Your task to perform on an android device: stop showing notifications on the lock screen Image 0: 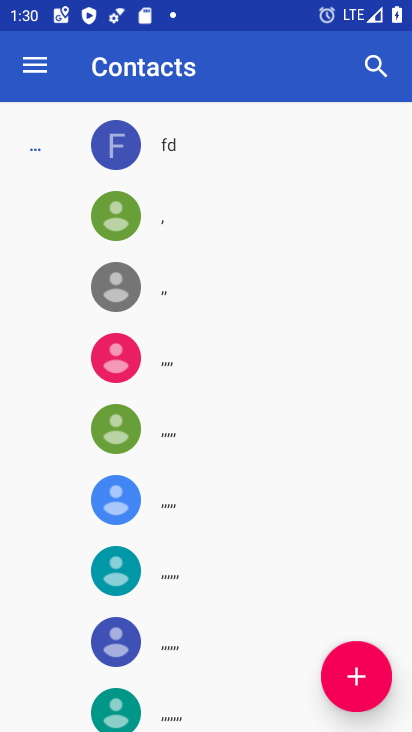
Step 0: press home button
Your task to perform on an android device: stop showing notifications on the lock screen Image 1: 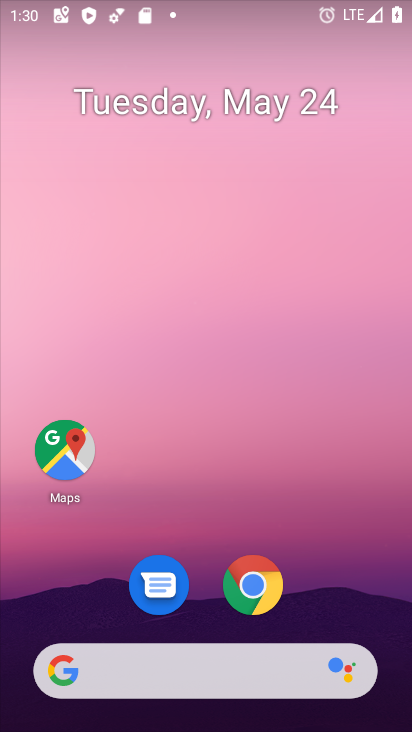
Step 1: drag from (198, 511) to (266, 37)
Your task to perform on an android device: stop showing notifications on the lock screen Image 2: 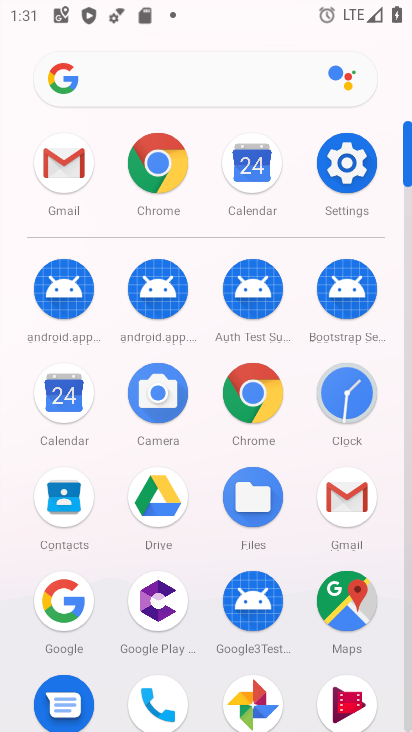
Step 2: click (338, 173)
Your task to perform on an android device: stop showing notifications on the lock screen Image 3: 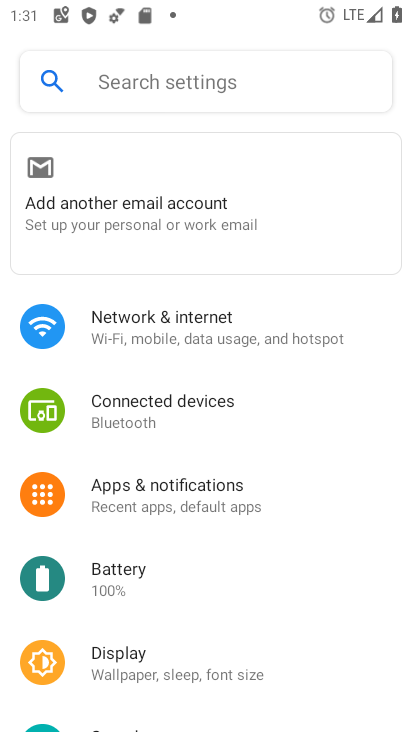
Step 3: click (223, 483)
Your task to perform on an android device: stop showing notifications on the lock screen Image 4: 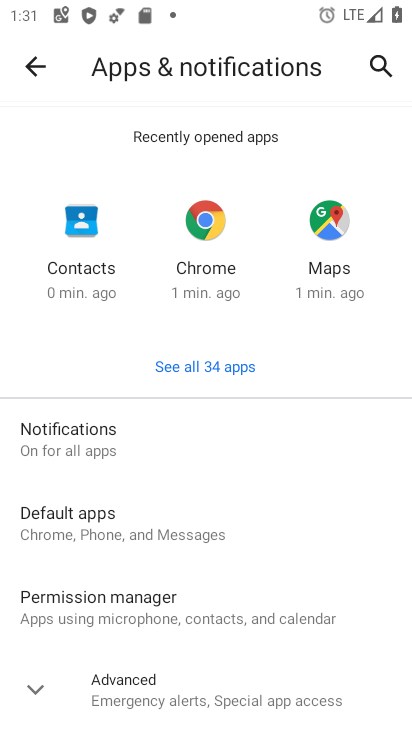
Step 4: click (207, 430)
Your task to perform on an android device: stop showing notifications on the lock screen Image 5: 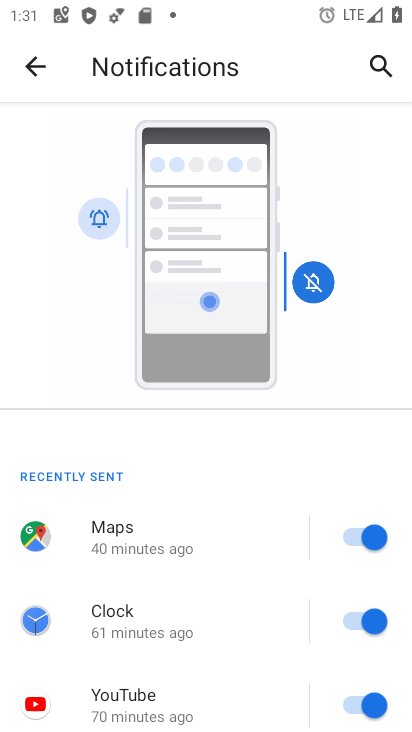
Step 5: drag from (213, 596) to (238, 229)
Your task to perform on an android device: stop showing notifications on the lock screen Image 6: 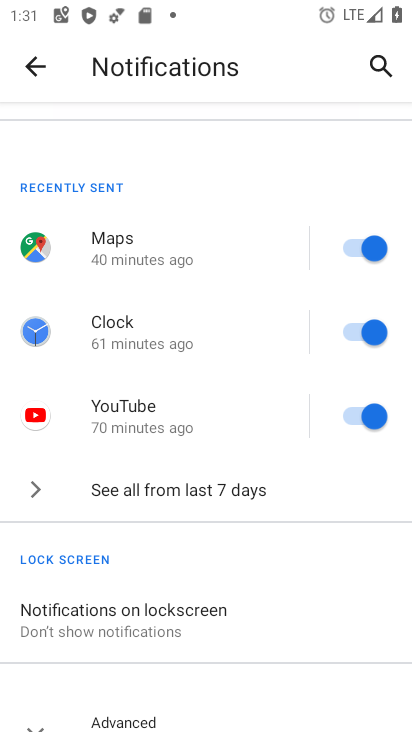
Step 6: click (235, 612)
Your task to perform on an android device: stop showing notifications on the lock screen Image 7: 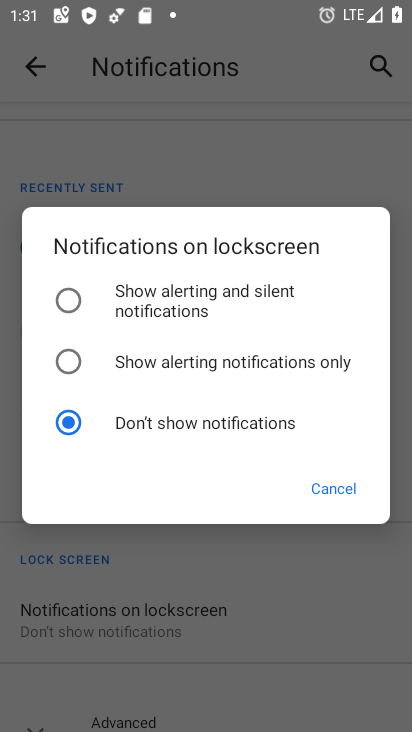
Step 7: click (334, 488)
Your task to perform on an android device: stop showing notifications on the lock screen Image 8: 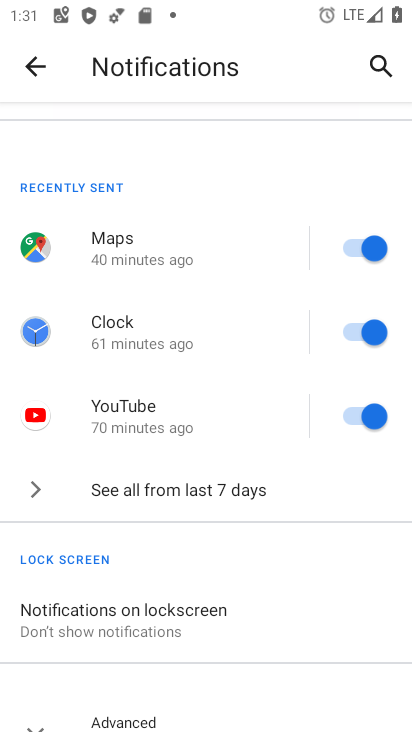
Step 8: task complete